Your task to perform on an android device: make emails show in primary in the gmail app Image 0: 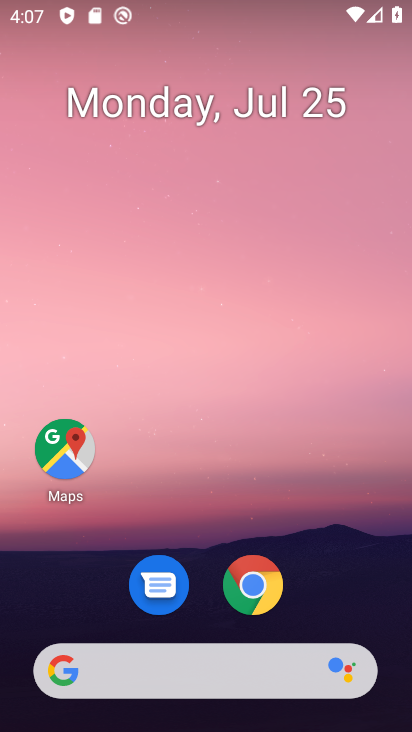
Step 0: drag from (327, 632) to (324, 74)
Your task to perform on an android device: make emails show in primary in the gmail app Image 1: 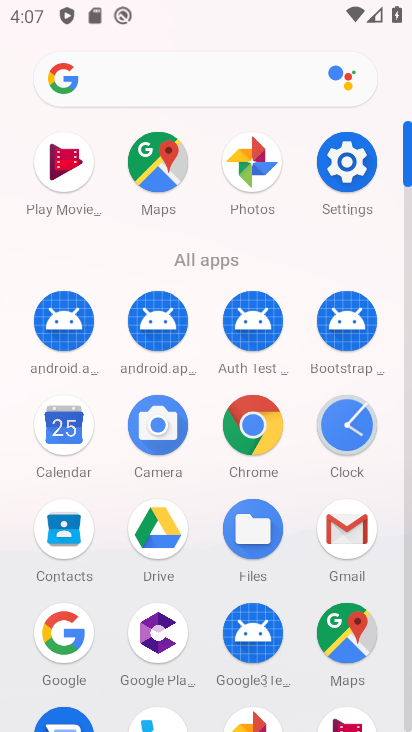
Step 1: click (357, 524)
Your task to perform on an android device: make emails show in primary in the gmail app Image 2: 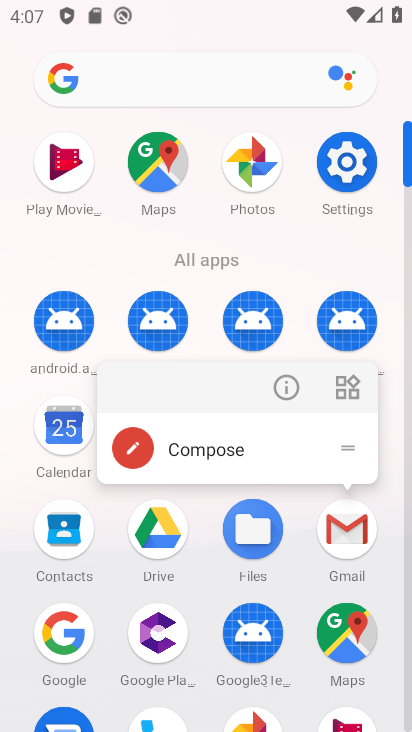
Step 2: click (357, 515)
Your task to perform on an android device: make emails show in primary in the gmail app Image 3: 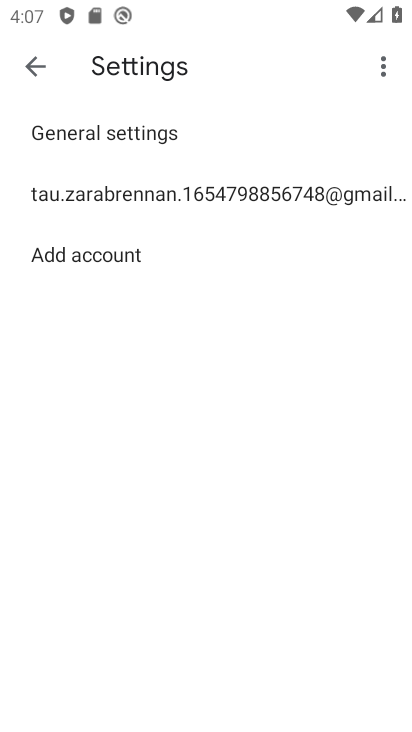
Step 3: click (44, 68)
Your task to perform on an android device: make emails show in primary in the gmail app Image 4: 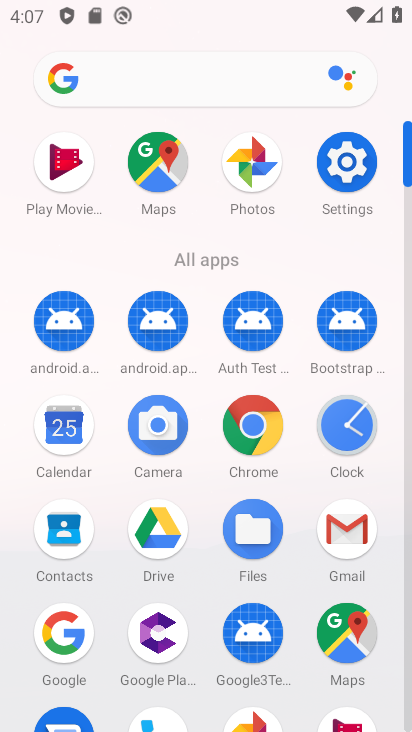
Step 4: click (325, 528)
Your task to perform on an android device: make emails show in primary in the gmail app Image 5: 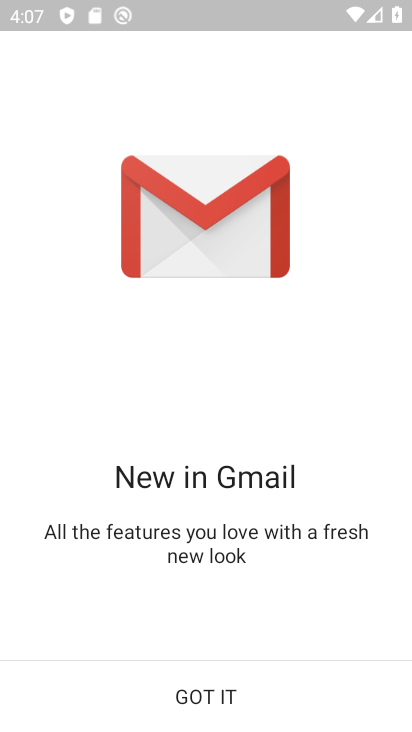
Step 5: click (255, 678)
Your task to perform on an android device: make emails show in primary in the gmail app Image 6: 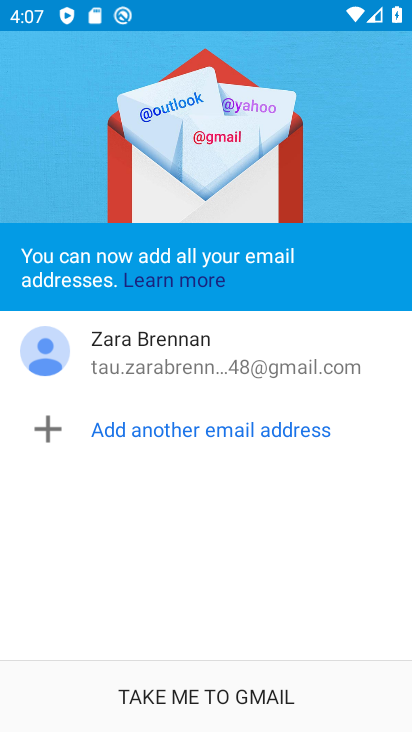
Step 6: click (261, 691)
Your task to perform on an android device: make emails show in primary in the gmail app Image 7: 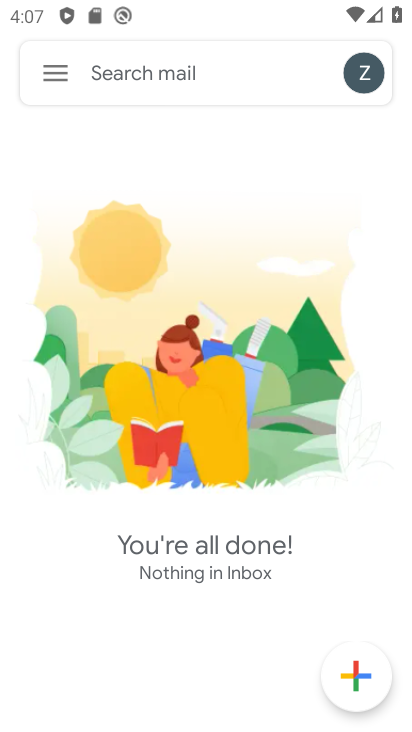
Step 7: click (58, 78)
Your task to perform on an android device: make emails show in primary in the gmail app Image 8: 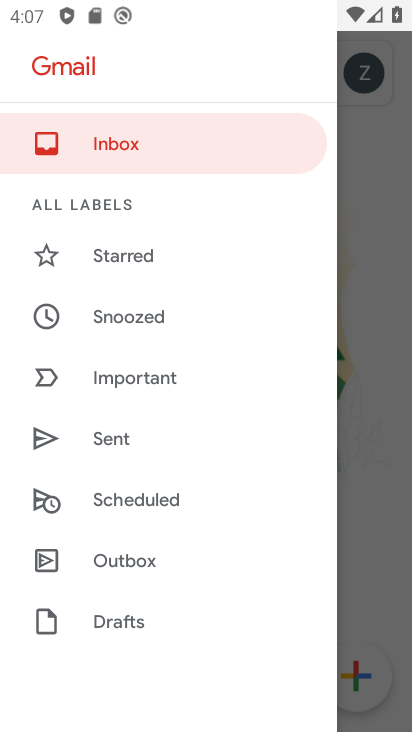
Step 8: drag from (152, 602) to (168, 290)
Your task to perform on an android device: make emails show in primary in the gmail app Image 9: 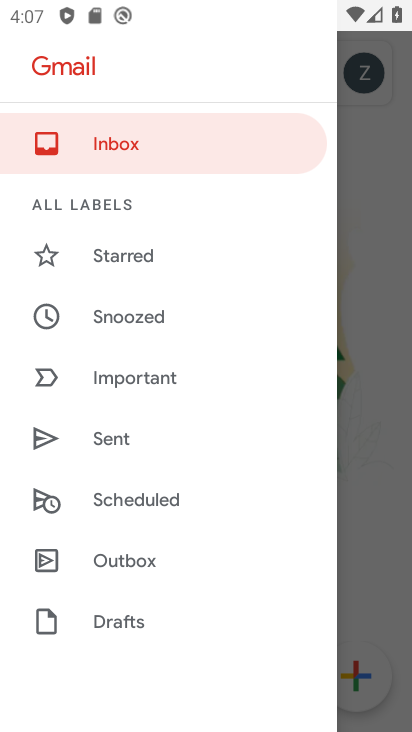
Step 9: drag from (157, 599) to (223, 151)
Your task to perform on an android device: make emails show in primary in the gmail app Image 10: 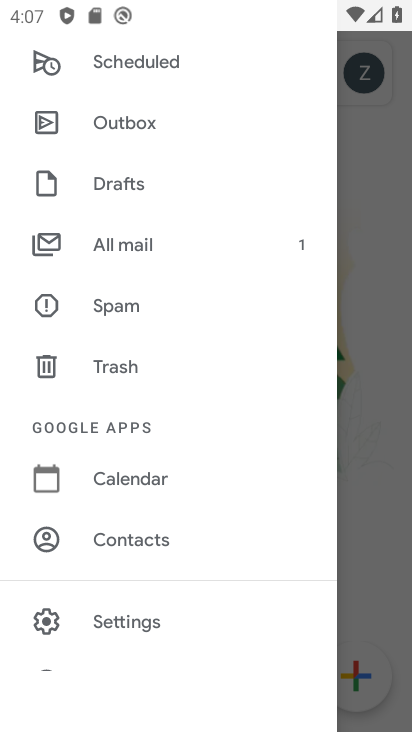
Step 10: click (145, 612)
Your task to perform on an android device: make emails show in primary in the gmail app Image 11: 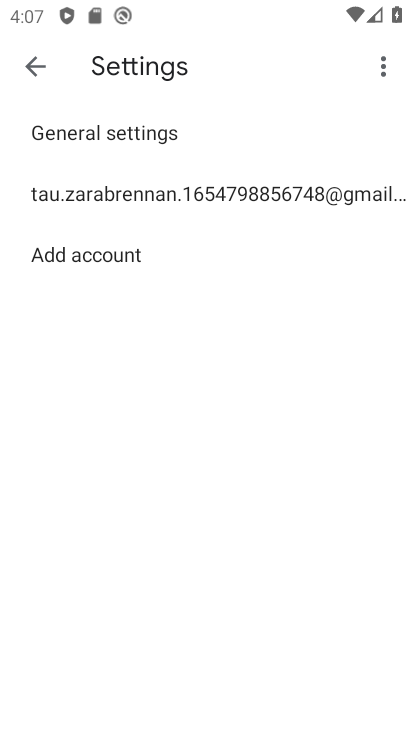
Step 11: click (42, 64)
Your task to perform on an android device: make emails show in primary in the gmail app Image 12: 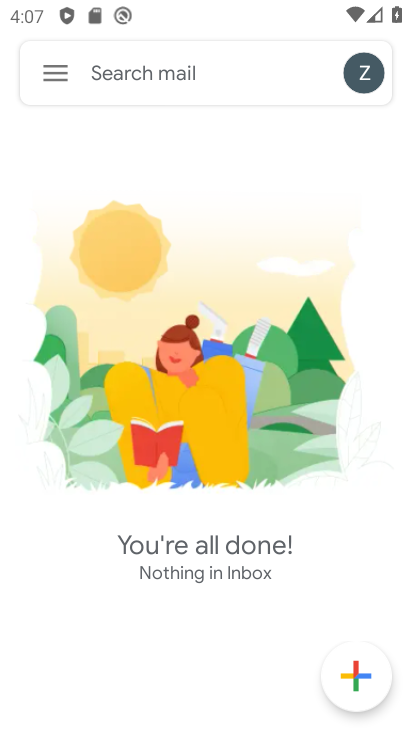
Step 12: click (58, 75)
Your task to perform on an android device: make emails show in primary in the gmail app Image 13: 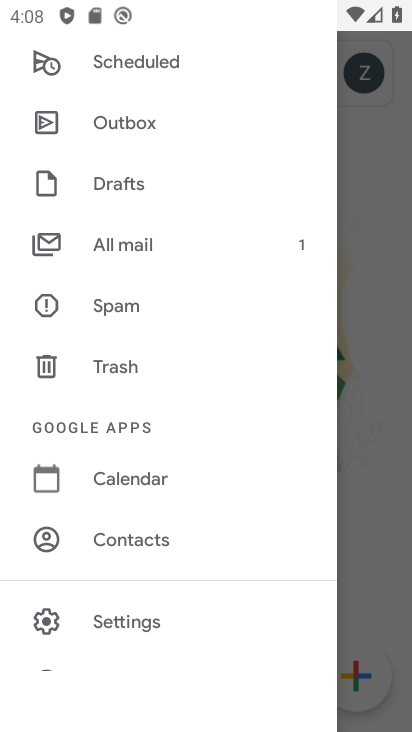
Step 13: click (153, 615)
Your task to perform on an android device: make emails show in primary in the gmail app Image 14: 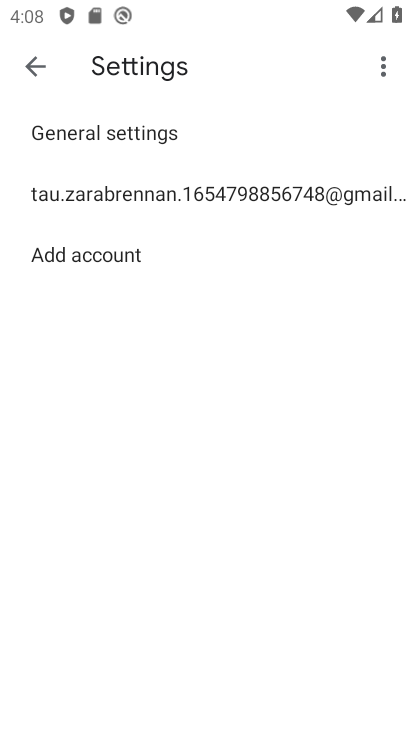
Step 14: click (200, 191)
Your task to perform on an android device: make emails show in primary in the gmail app Image 15: 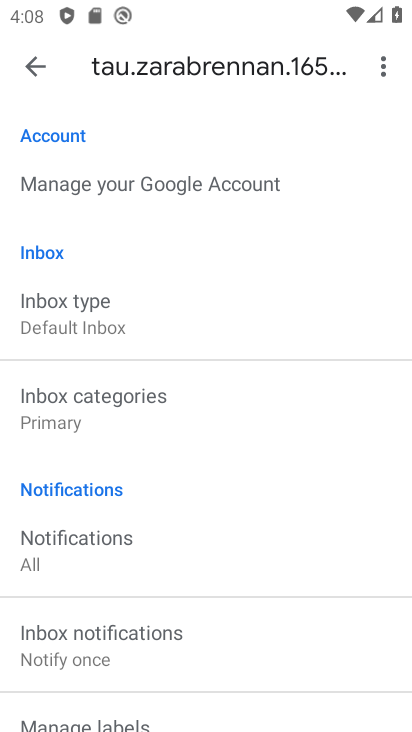
Step 15: drag from (184, 528) to (202, 201)
Your task to perform on an android device: make emails show in primary in the gmail app Image 16: 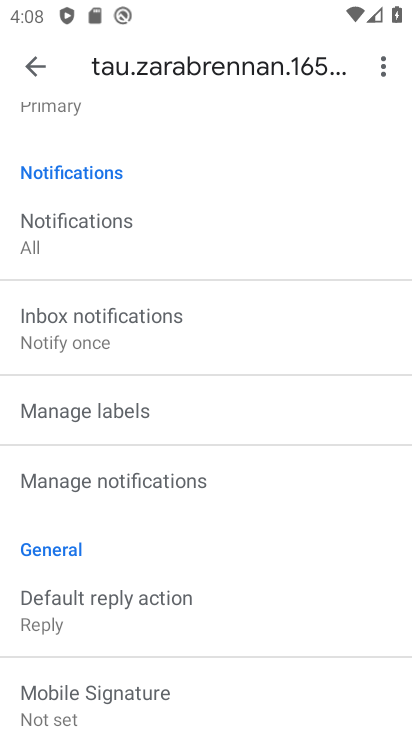
Step 16: drag from (202, 210) to (232, 586)
Your task to perform on an android device: make emails show in primary in the gmail app Image 17: 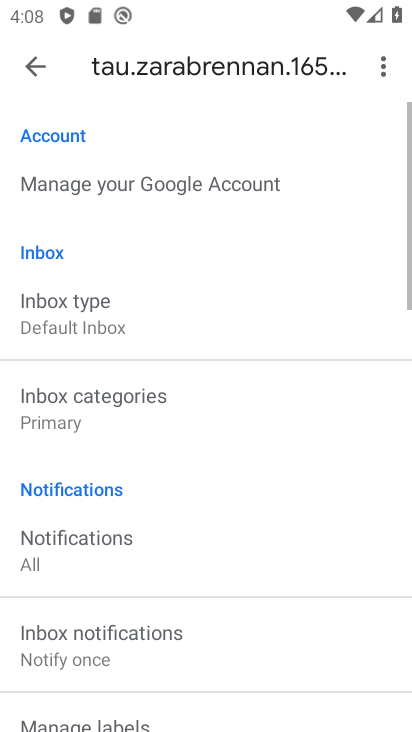
Step 17: click (74, 314)
Your task to perform on an android device: make emails show in primary in the gmail app Image 18: 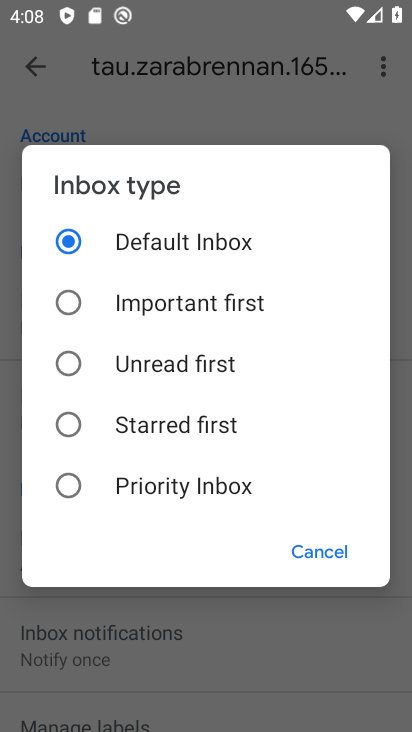
Step 18: click (305, 549)
Your task to perform on an android device: make emails show in primary in the gmail app Image 19: 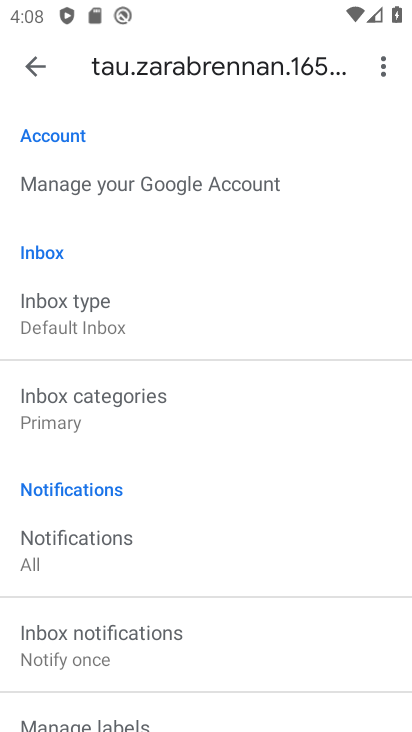
Step 19: task complete